Your task to perform on an android device: Clear the cart on costco. Search for usb-c on costco, select the first entry, add it to the cart, then select checkout. Image 0: 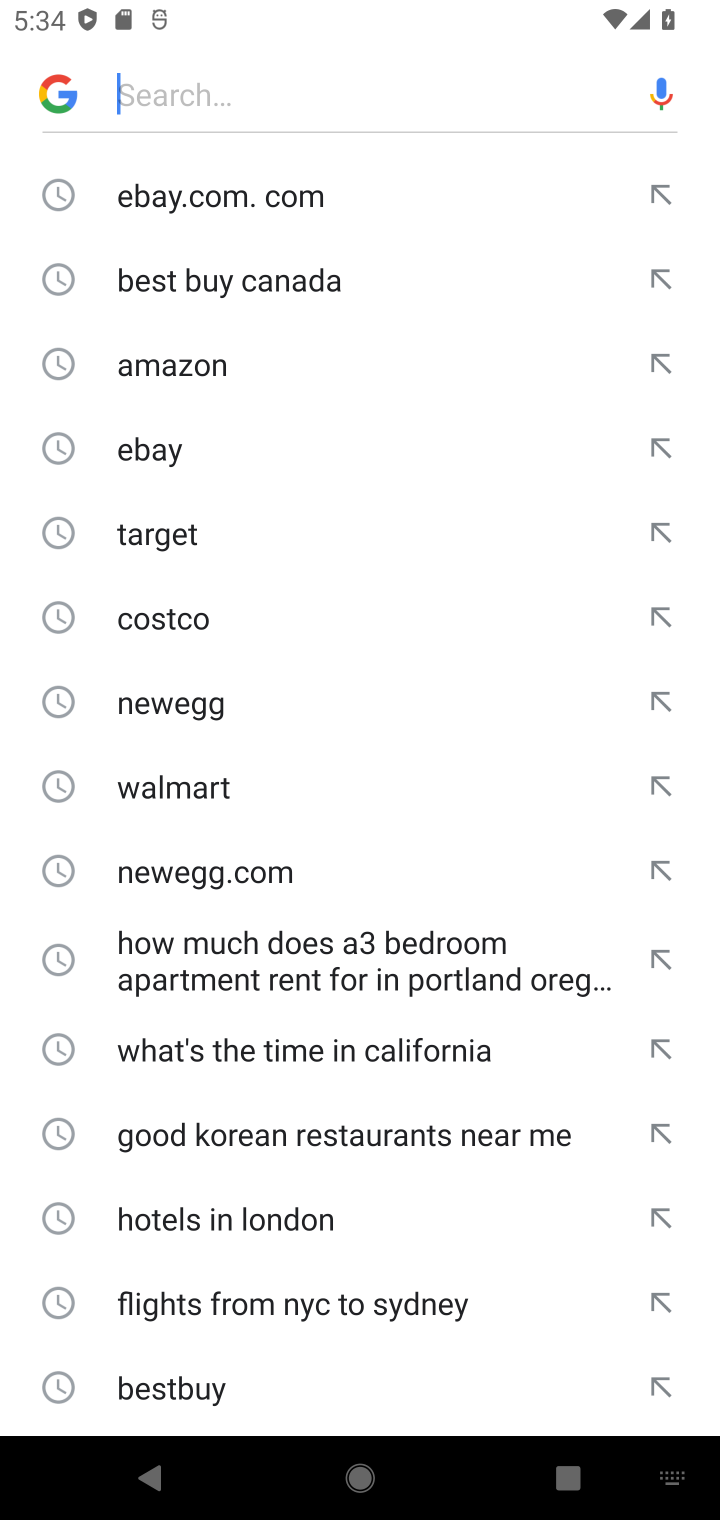
Step 0: press home button
Your task to perform on an android device: Clear the cart on costco. Search for usb-c on costco, select the first entry, add it to the cart, then select checkout. Image 1: 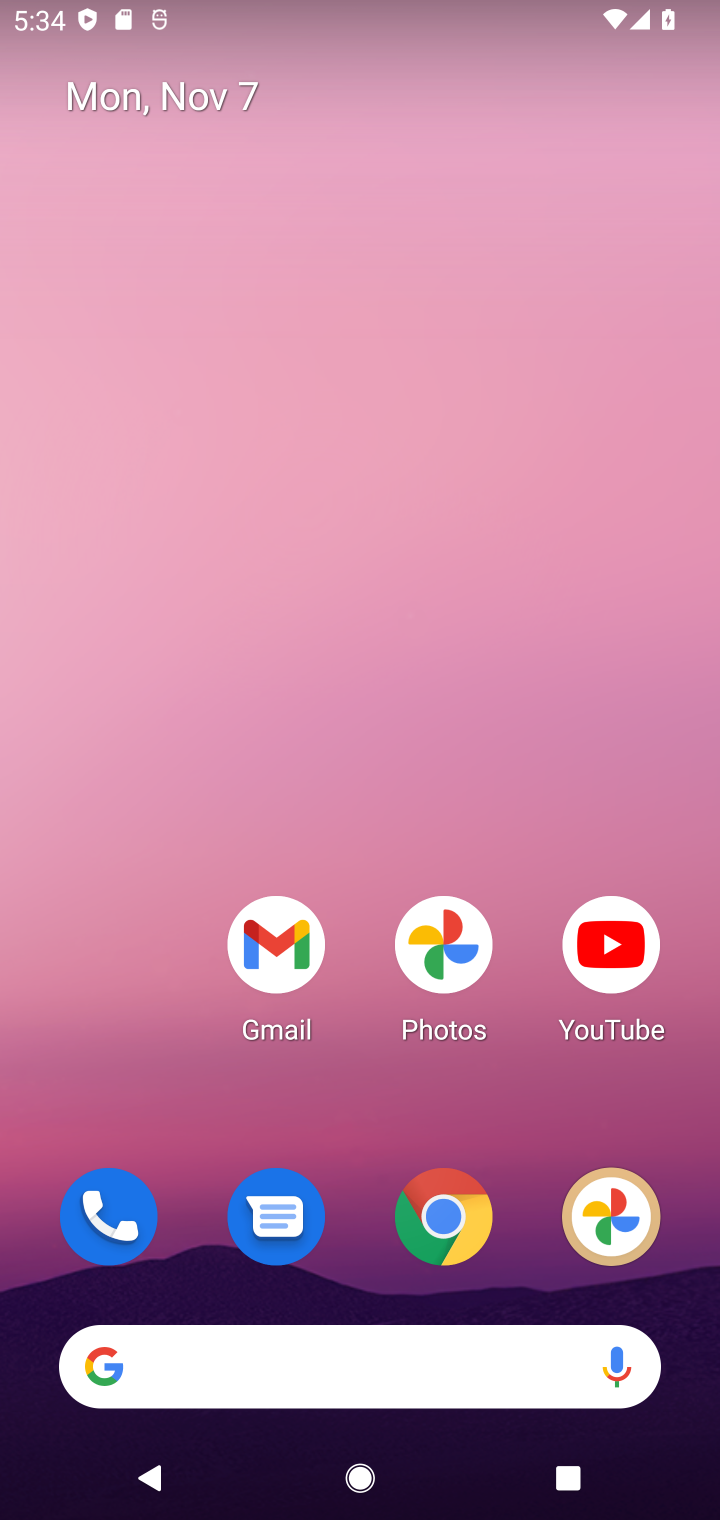
Step 1: drag from (362, 1120) to (241, 0)
Your task to perform on an android device: Clear the cart on costco. Search for usb-c on costco, select the first entry, add it to the cart, then select checkout. Image 2: 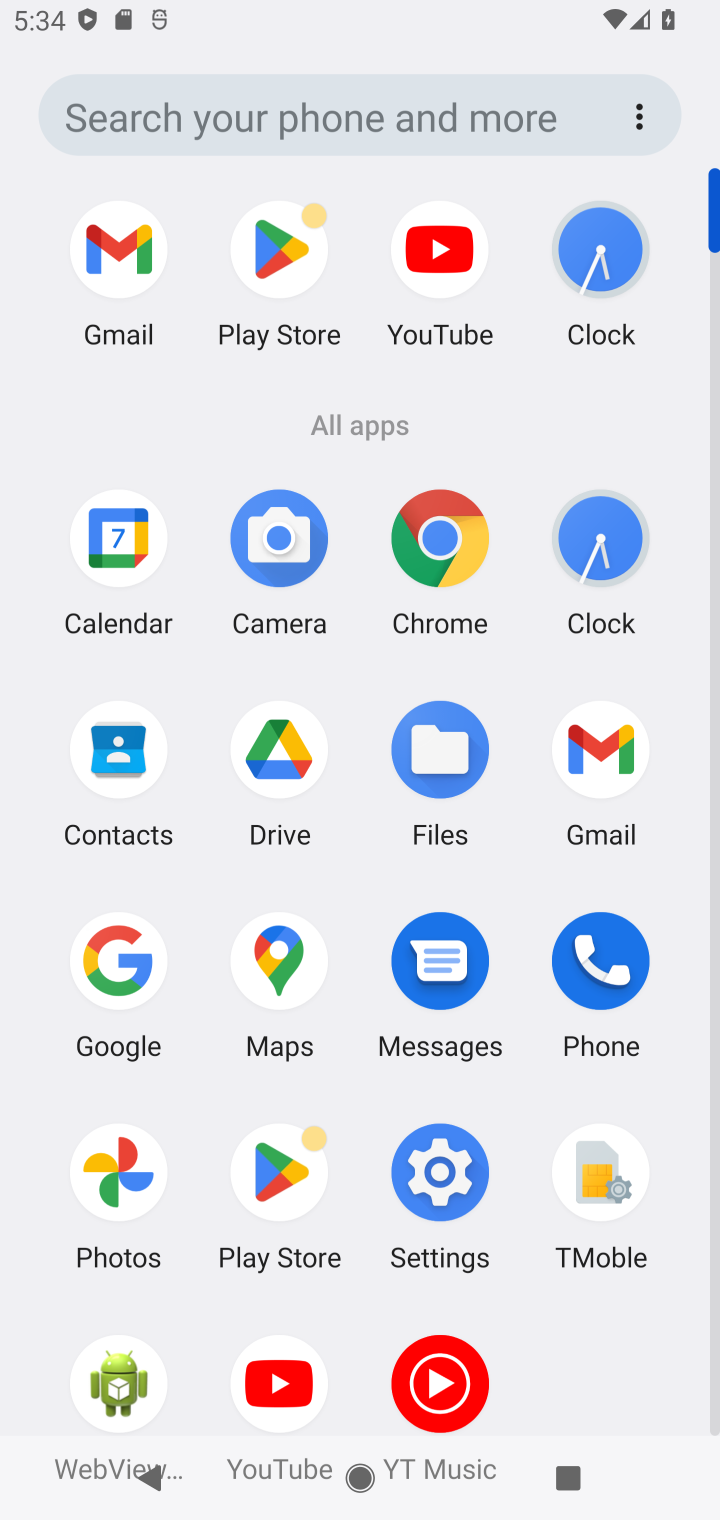
Step 2: click (440, 545)
Your task to perform on an android device: Clear the cart on costco. Search for usb-c on costco, select the first entry, add it to the cart, then select checkout. Image 3: 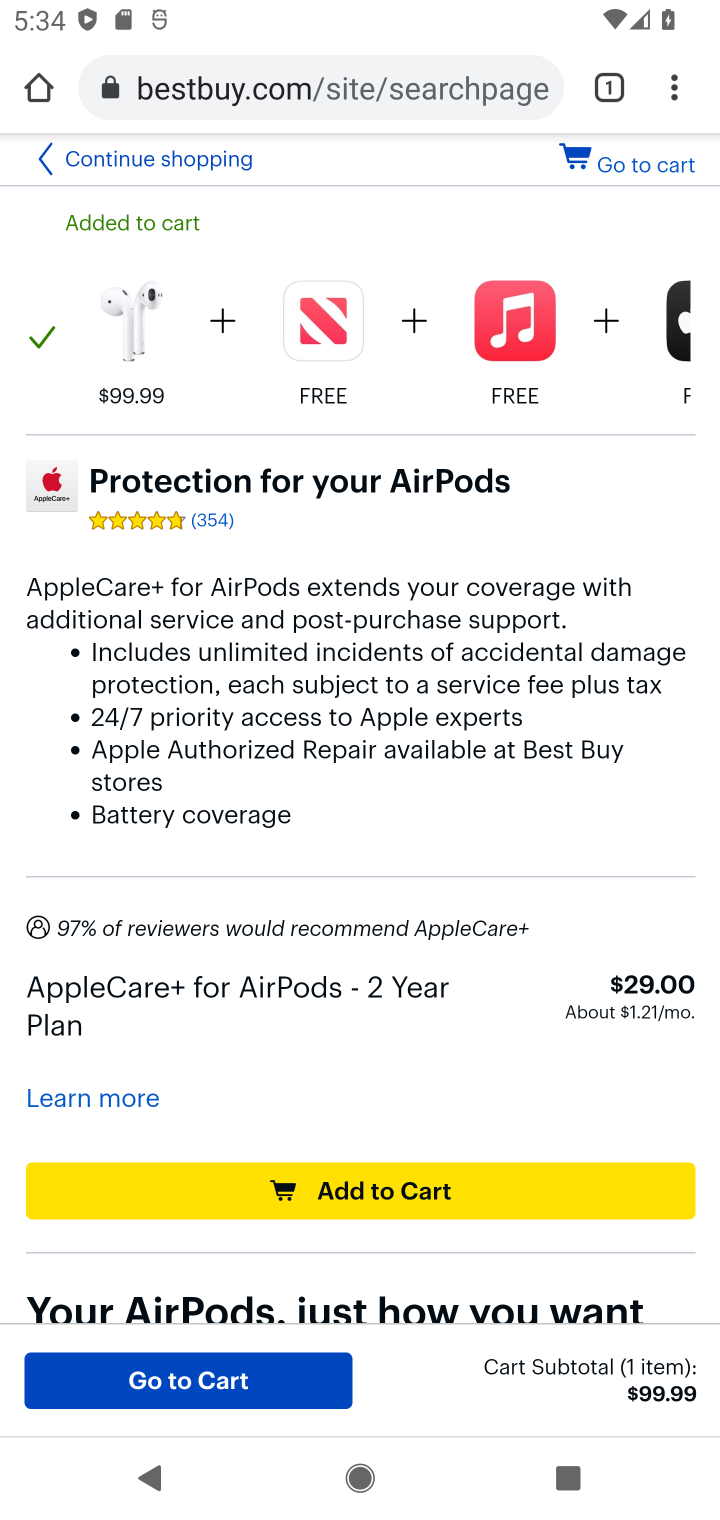
Step 3: click (306, 76)
Your task to perform on an android device: Clear the cart on costco. Search for usb-c on costco, select the first entry, add it to the cart, then select checkout. Image 4: 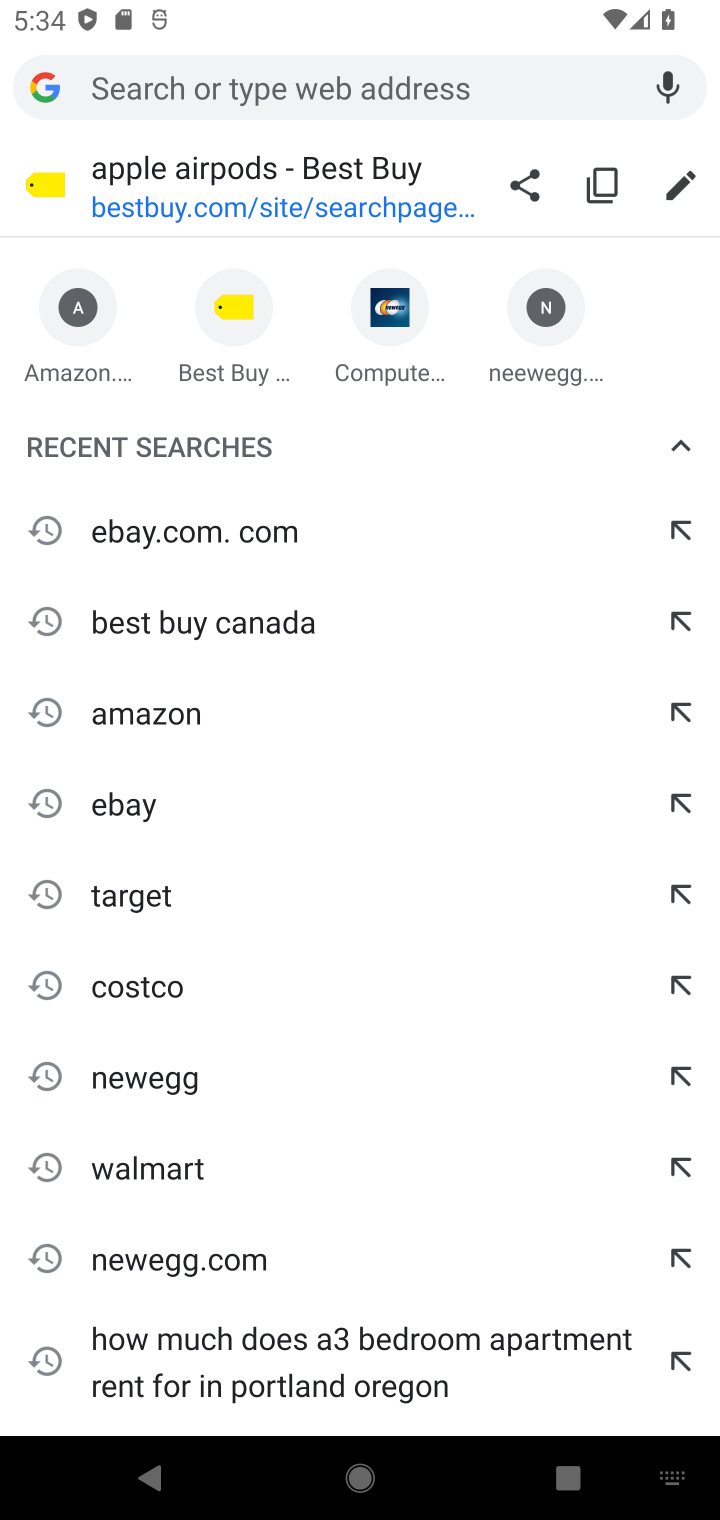
Step 4: type "costco.com"
Your task to perform on an android device: Clear the cart on costco. Search for usb-c on costco, select the first entry, add it to the cart, then select checkout. Image 5: 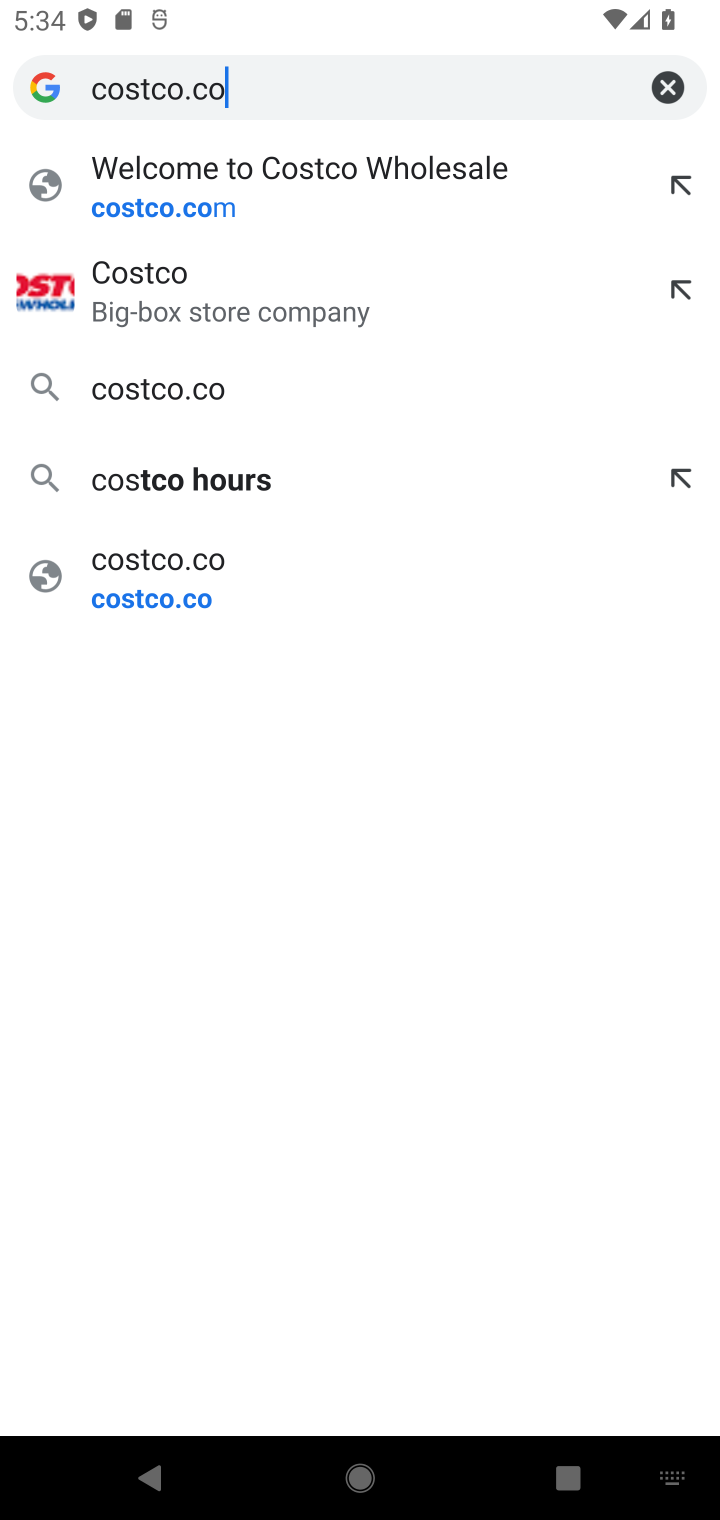
Step 5: press enter
Your task to perform on an android device: Clear the cart on costco. Search for usb-c on costco, select the first entry, add it to the cart, then select checkout. Image 6: 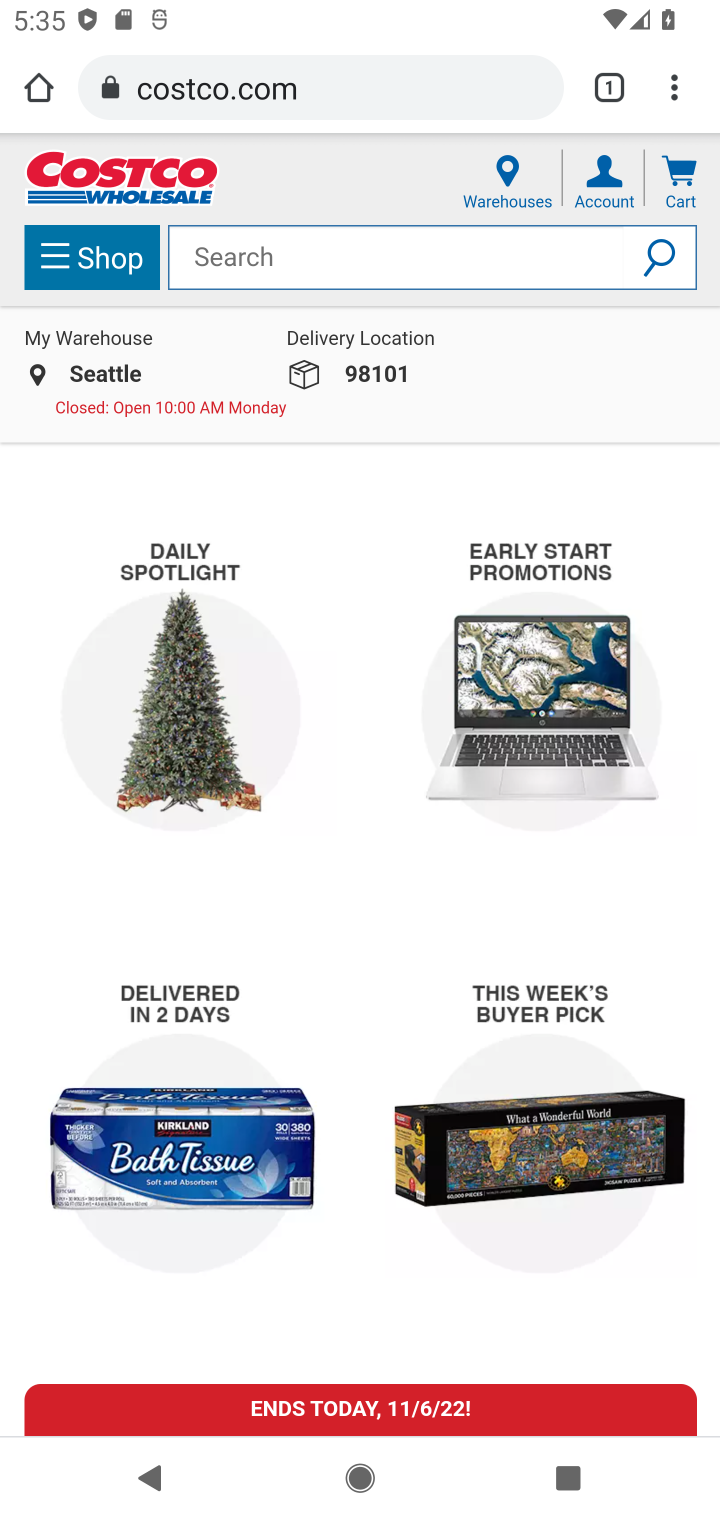
Step 6: click (682, 184)
Your task to perform on an android device: Clear the cart on costco. Search for usb-c on costco, select the first entry, add it to the cart, then select checkout. Image 7: 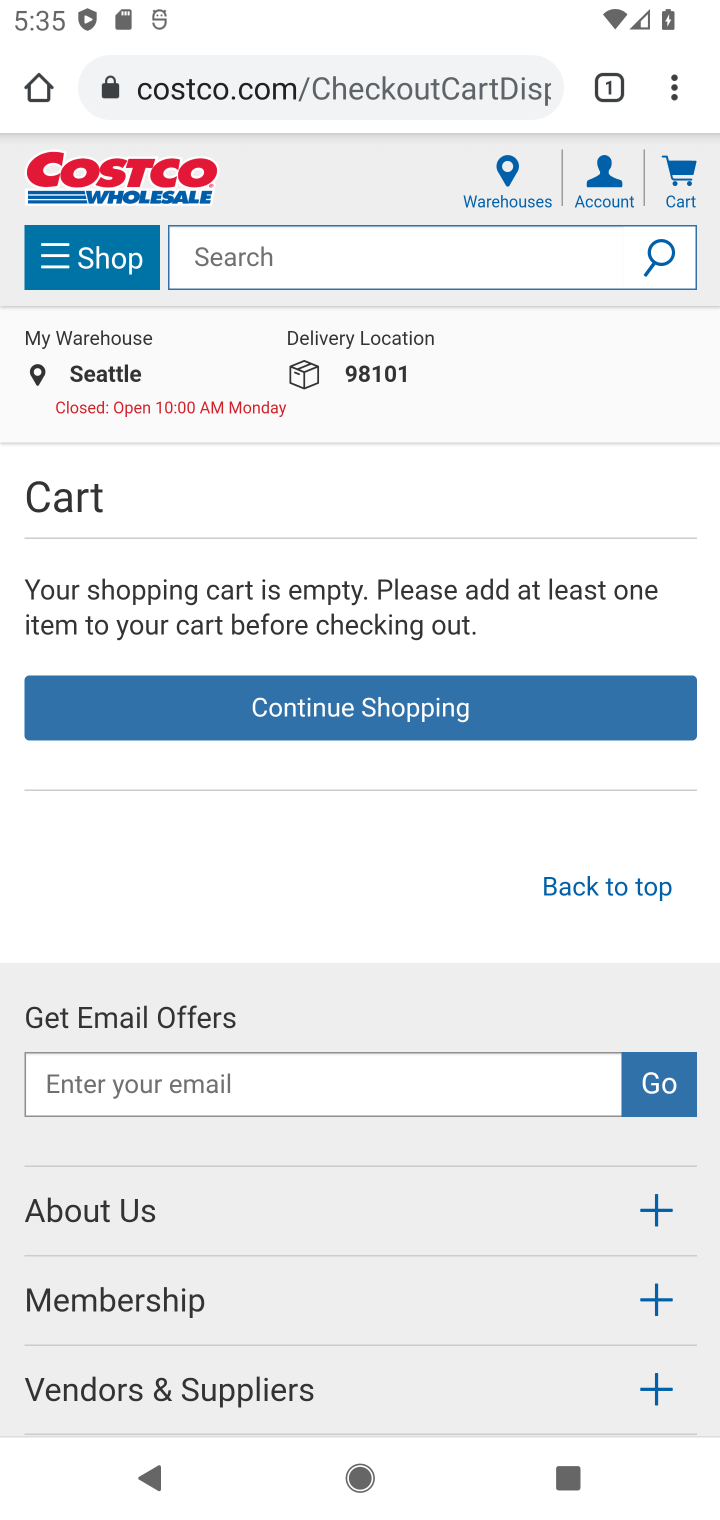
Step 7: click (472, 252)
Your task to perform on an android device: Clear the cart on costco. Search for usb-c on costco, select the first entry, add it to the cart, then select checkout. Image 8: 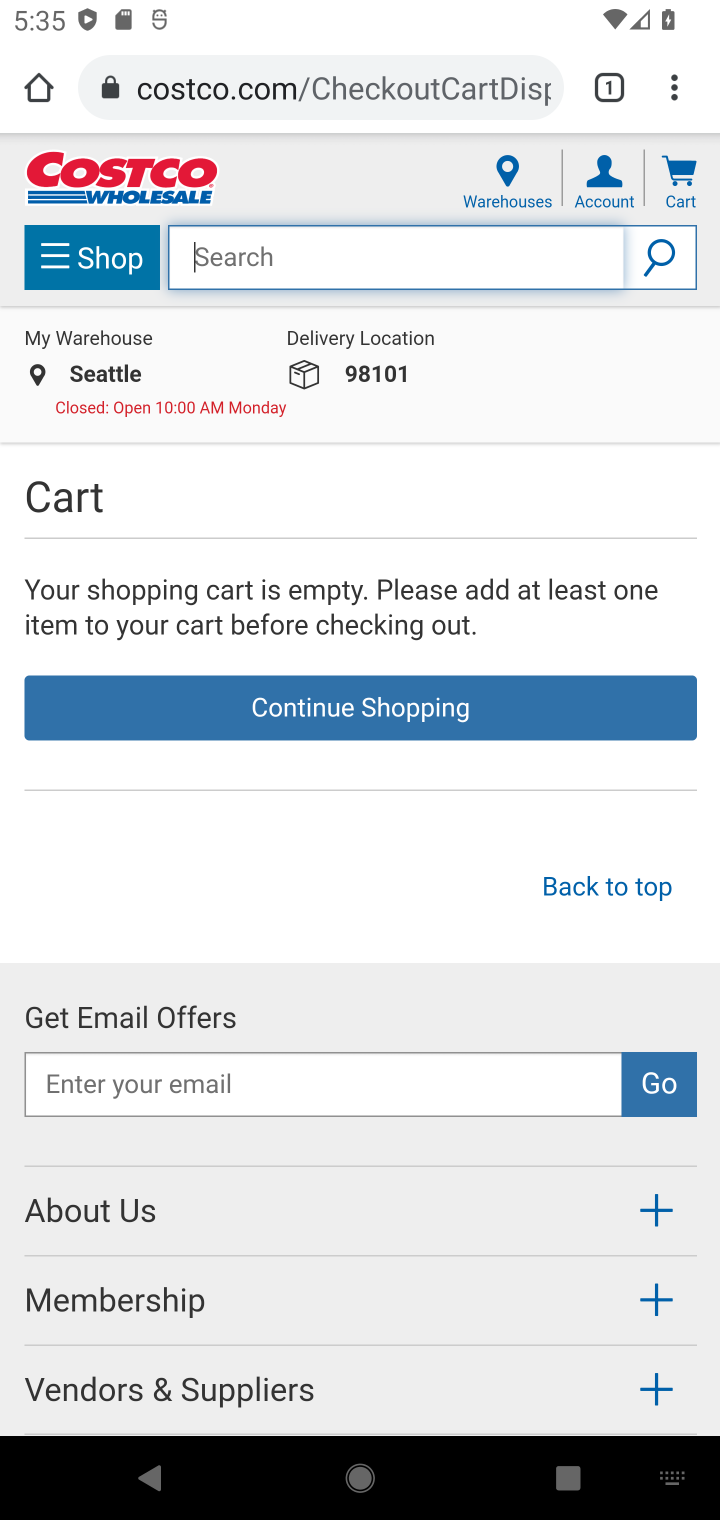
Step 8: type "usb-c"
Your task to perform on an android device: Clear the cart on costco. Search for usb-c on costco, select the first entry, add it to the cart, then select checkout. Image 9: 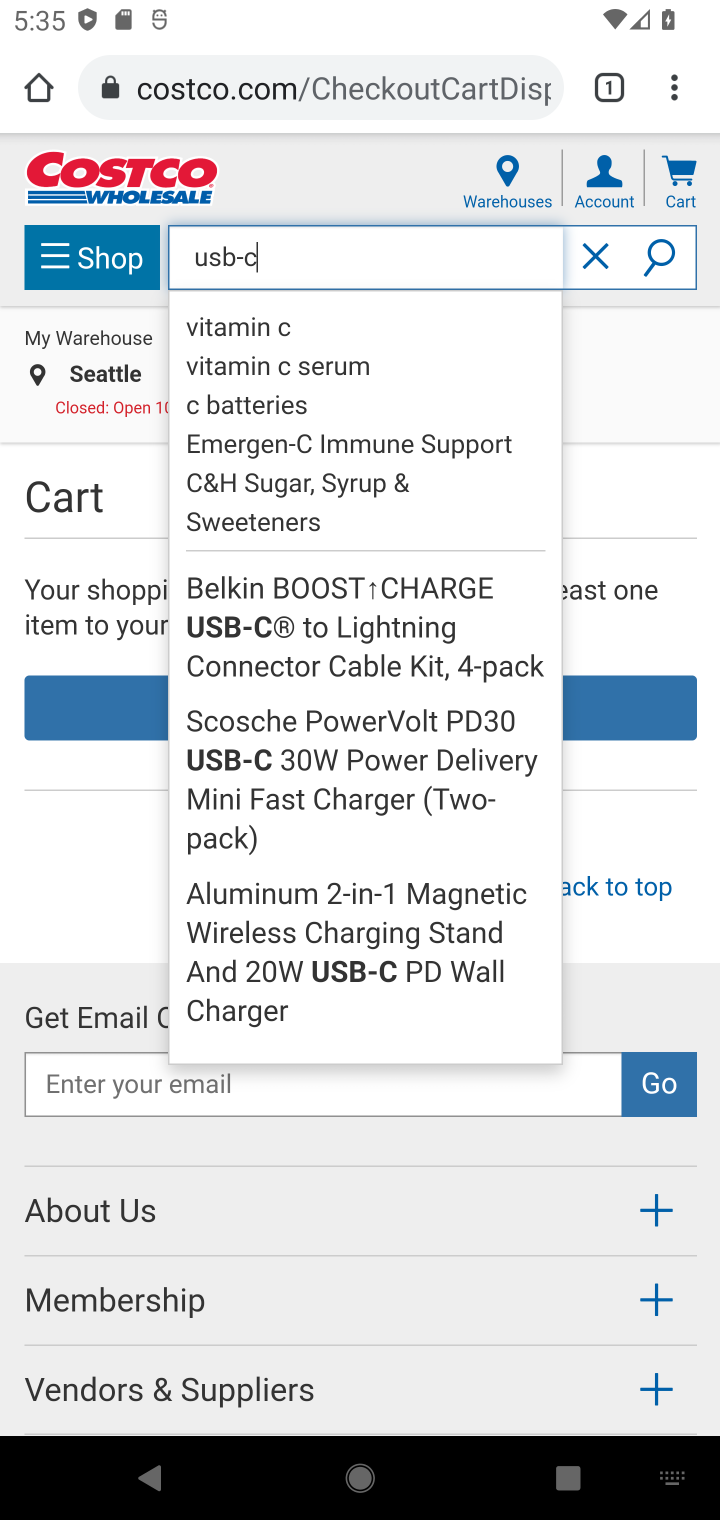
Step 9: press enter
Your task to perform on an android device: Clear the cart on costco. Search for usb-c on costco, select the first entry, add it to the cart, then select checkout. Image 10: 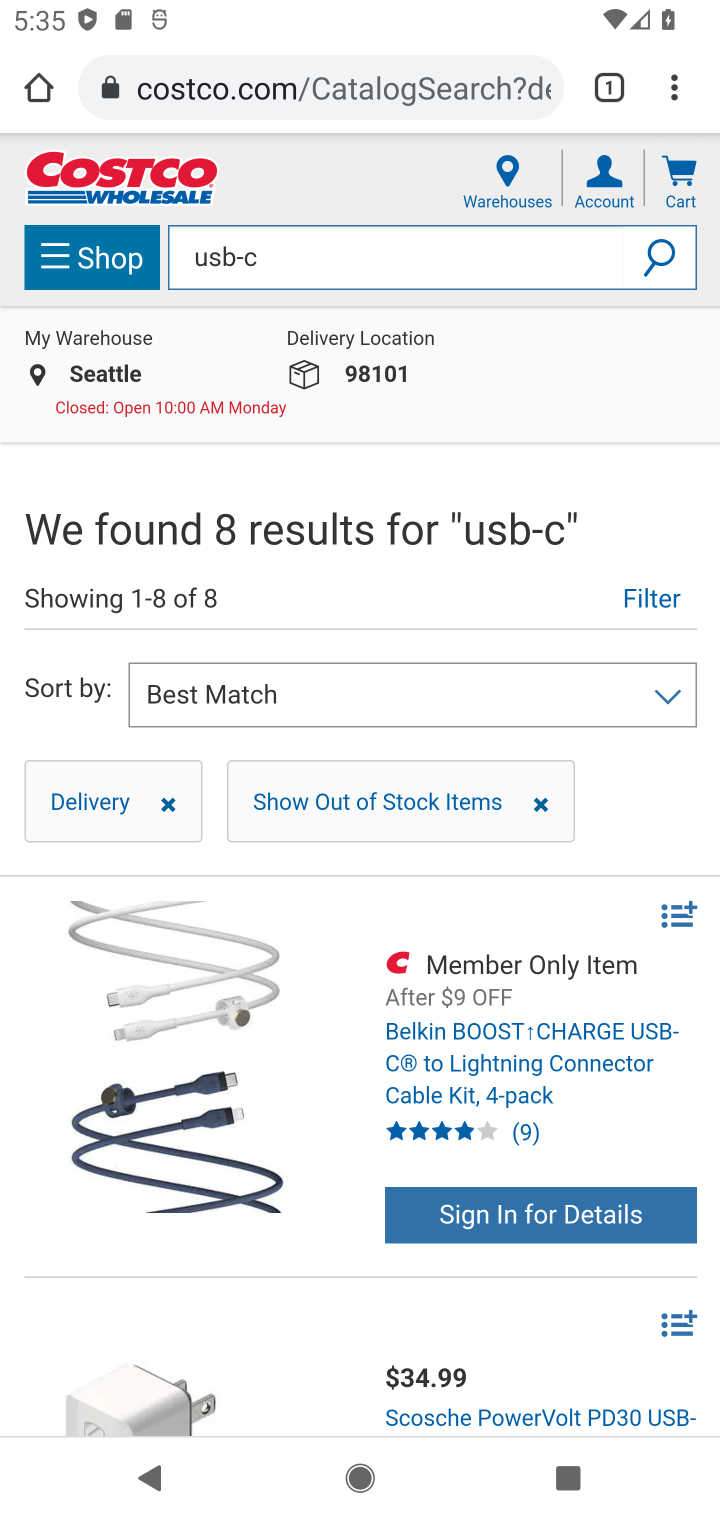
Step 10: drag from (503, 1098) to (438, 644)
Your task to perform on an android device: Clear the cart on costco. Search for usb-c on costco, select the first entry, add it to the cart, then select checkout. Image 11: 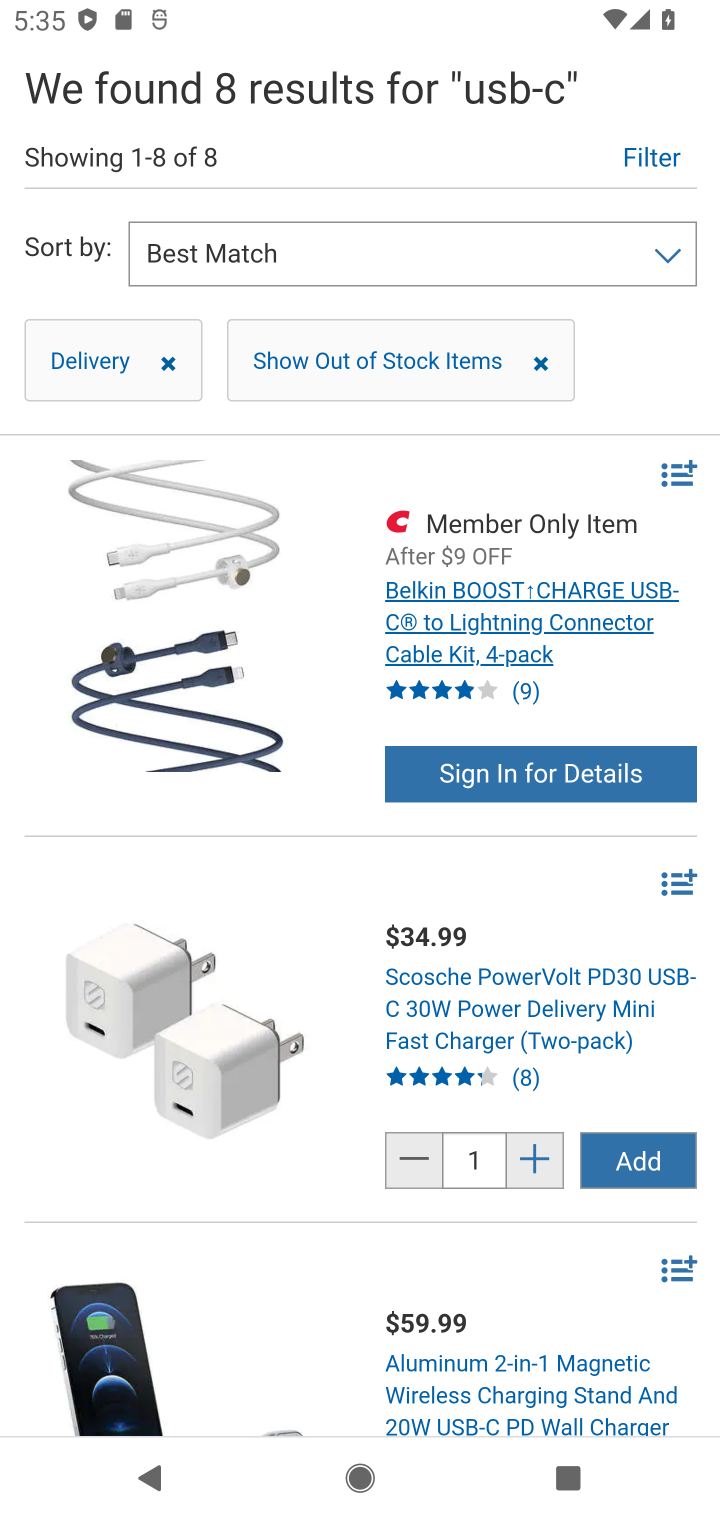
Step 11: click (462, 603)
Your task to perform on an android device: Clear the cart on costco. Search for usb-c on costco, select the first entry, add it to the cart, then select checkout. Image 12: 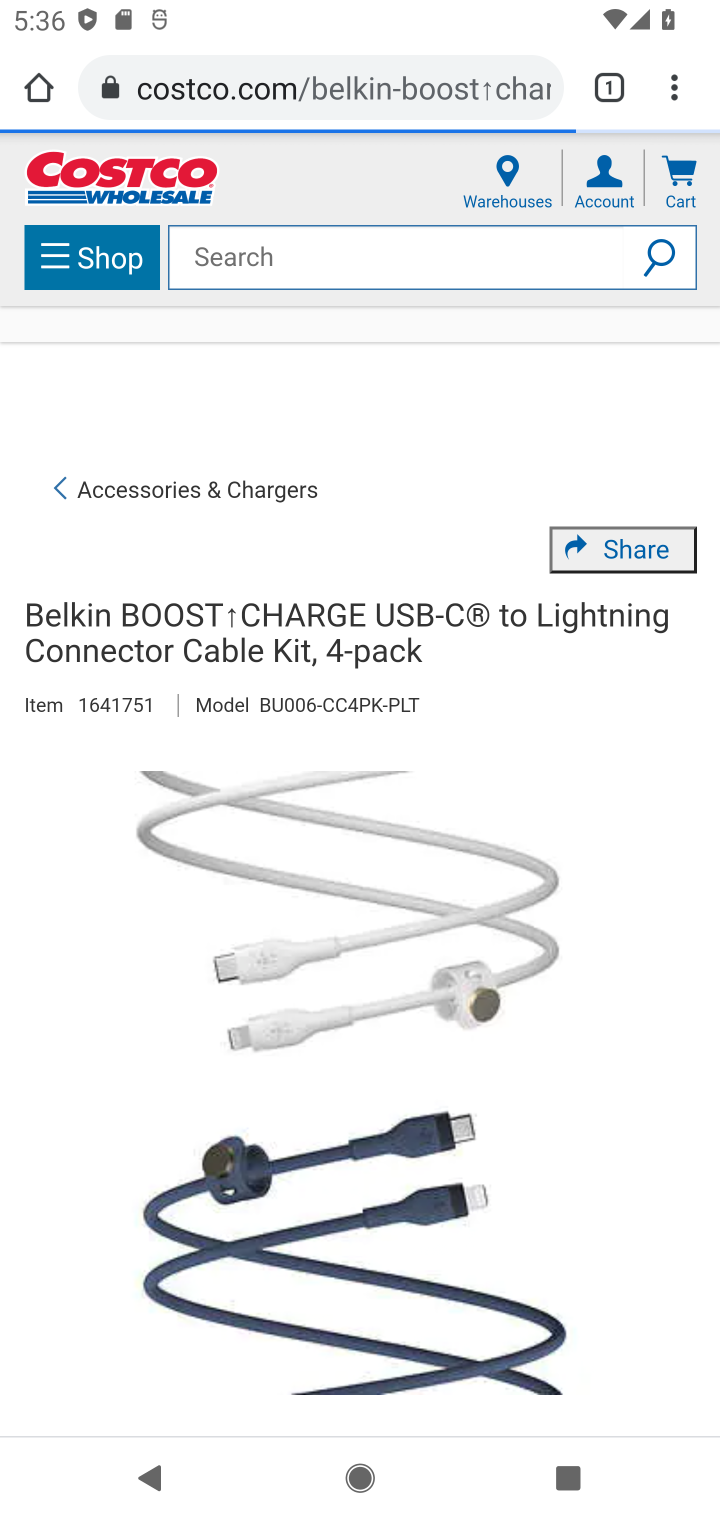
Step 12: task complete